Your task to perform on an android device: Go to privacy settings Image 0: 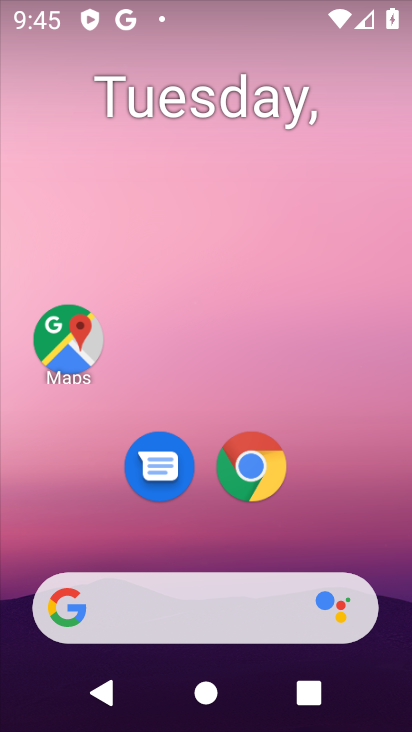
Step 0: drag from (335, 384) to (251, 12)
Your task to perform on an android device: Go to privacy settings Image 1: 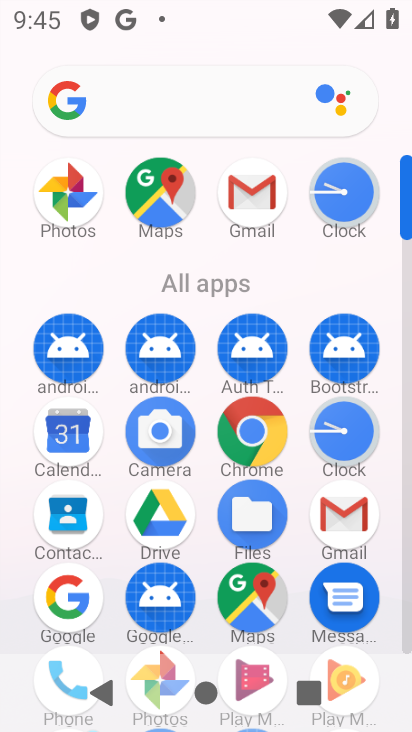
Step 1: drag from (354, 509) to (332, 164)
Your task to perform on an android device: Go to privacy settings Image 2: 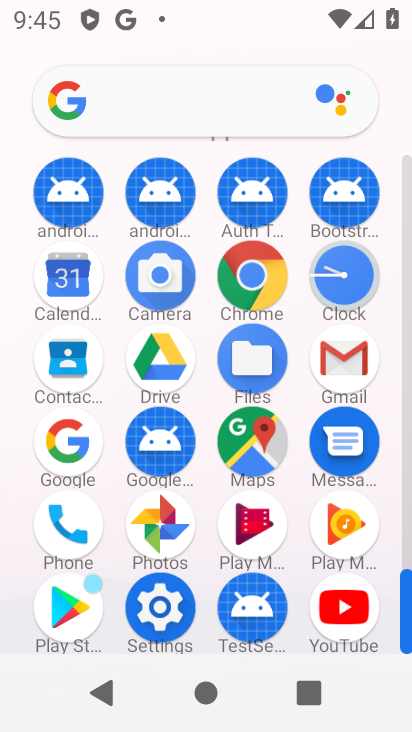
Step 2: click (172, 614)
Your task to perform on an android device: Go to privacy settings Image 3: 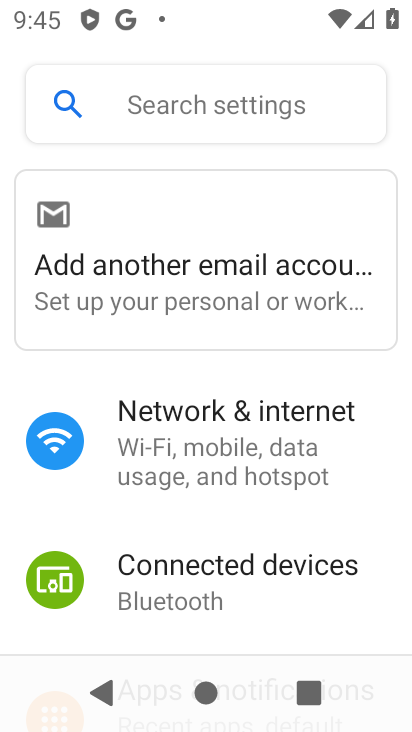
Step 3: drag from (305, 595) to (297, 142)
Your task to perform on an android device: Go to privacy settings Image 4: 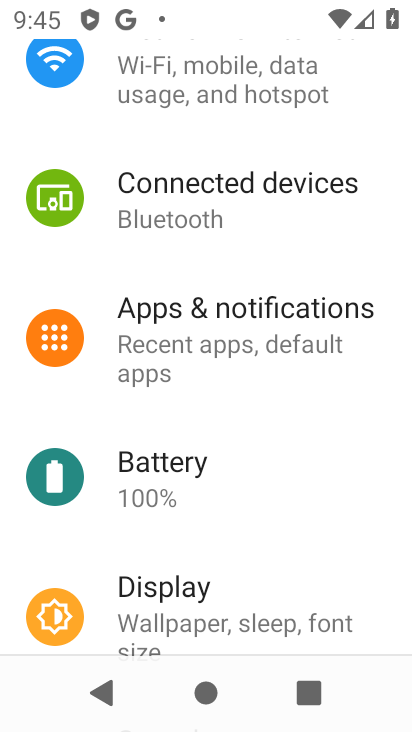
Step 4: drag from (233, 595) to (264, 98)
Your task to perform on an android device: Go to privacy settings Image 5: 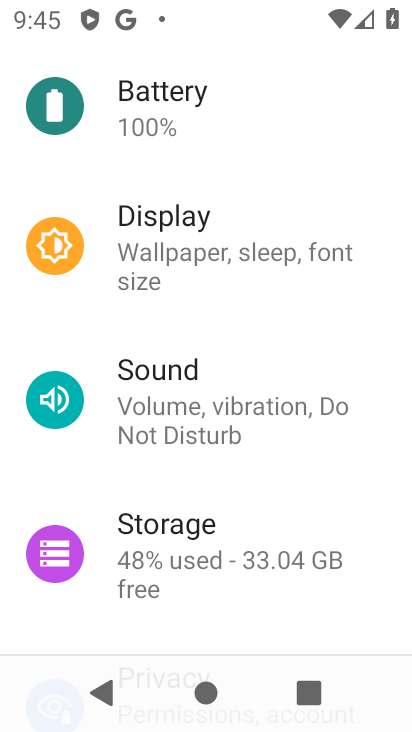
Step 5: drag from (230, 423) to (262, 149)
Your task to perform on an android device: Go to privacy settings Image 6: 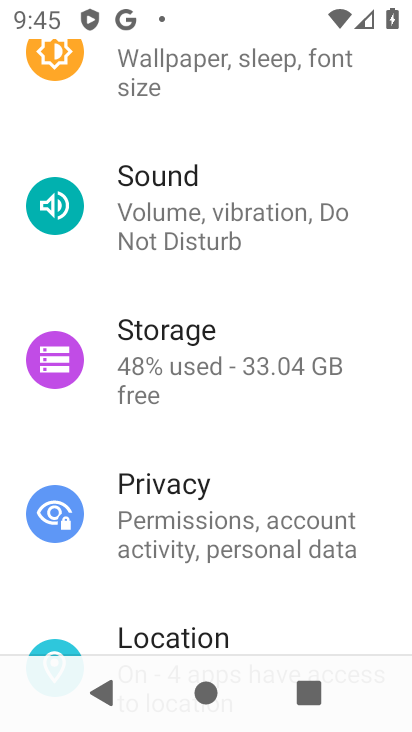
Step 6: click (172, 526)
Your task to perform on an android device: Go to privacy settings Image 7: 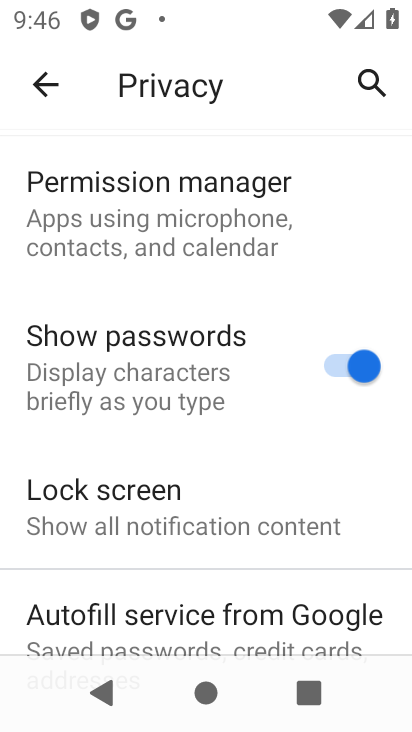
Step 7: task complete